Your task to perform on an android device: Search for the best websites on the internet Image 0: 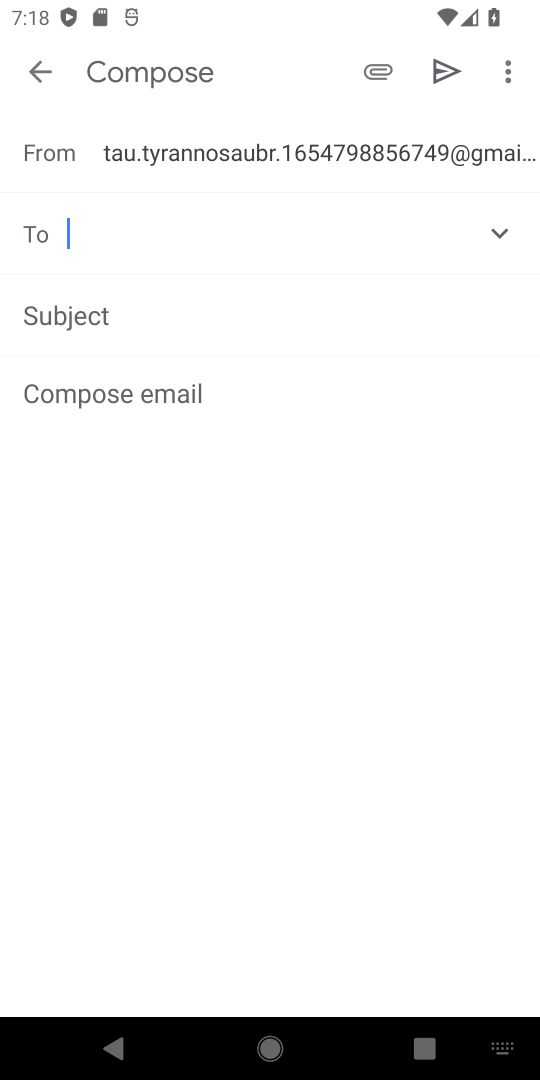
Step 0: press home button
Your task to perform on an android device: Search for the best websites on the internet Image 1: 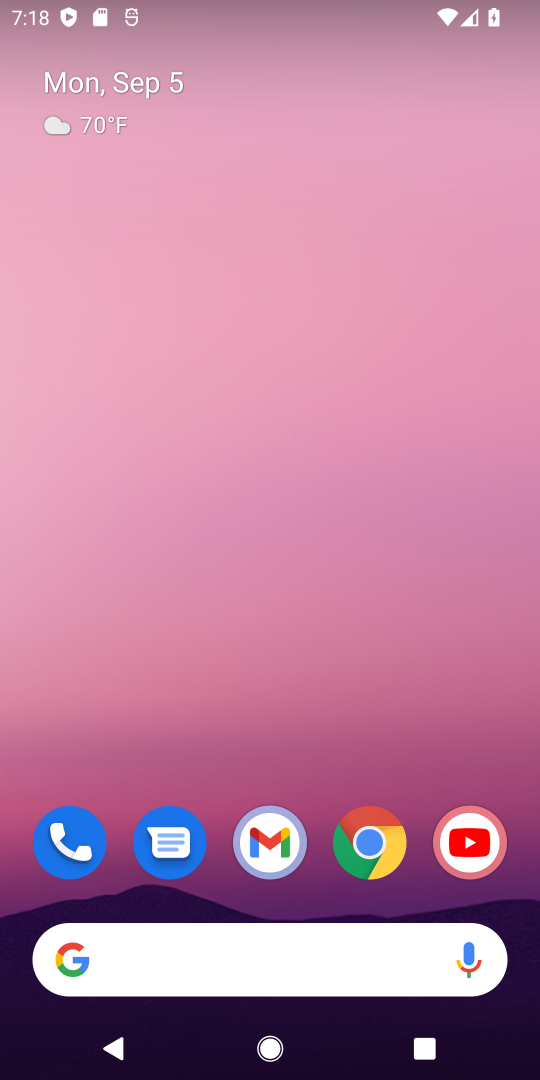
Step 1: click (369, 845)
Your task to perform on an android device: Search for the best websites on the internet Image 2: 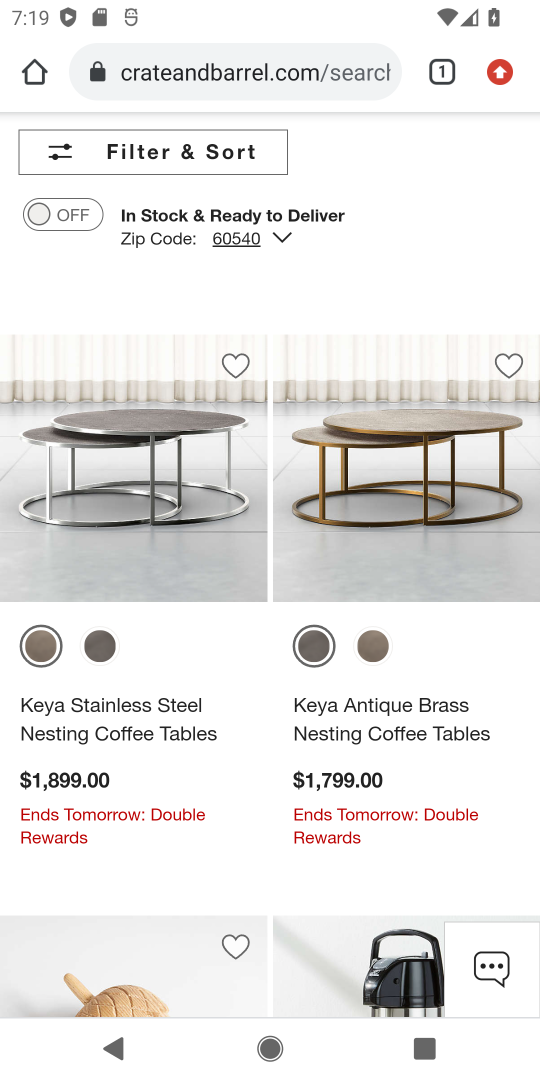
Step 2: click (308, 75)
Your task to perform on an android device: Search for the best websites on the internet Image 3: 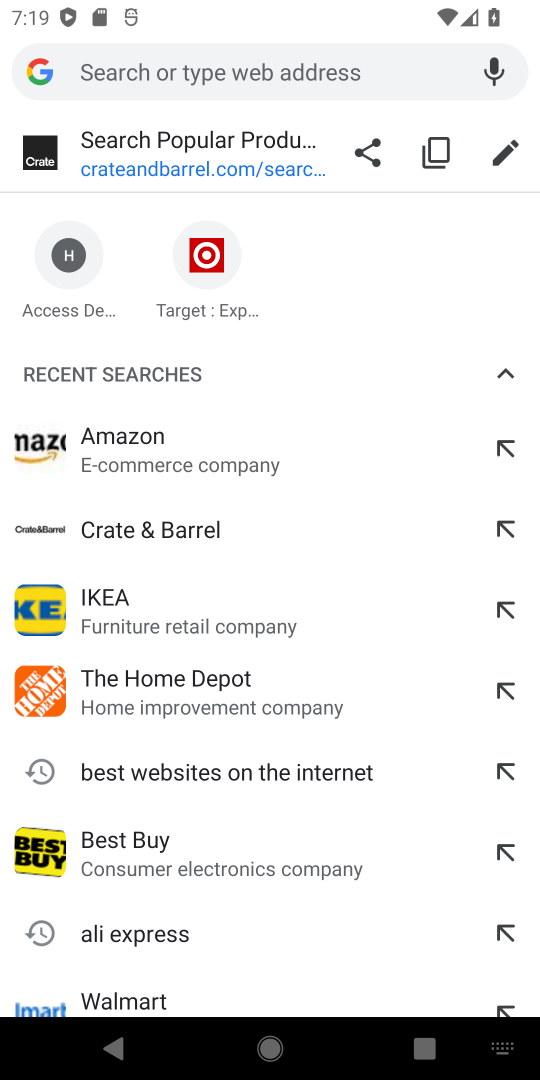
Step 3: type "best websites on the internet"
Your task to perform on an android device: Search for the best websites on the internet Image 4: 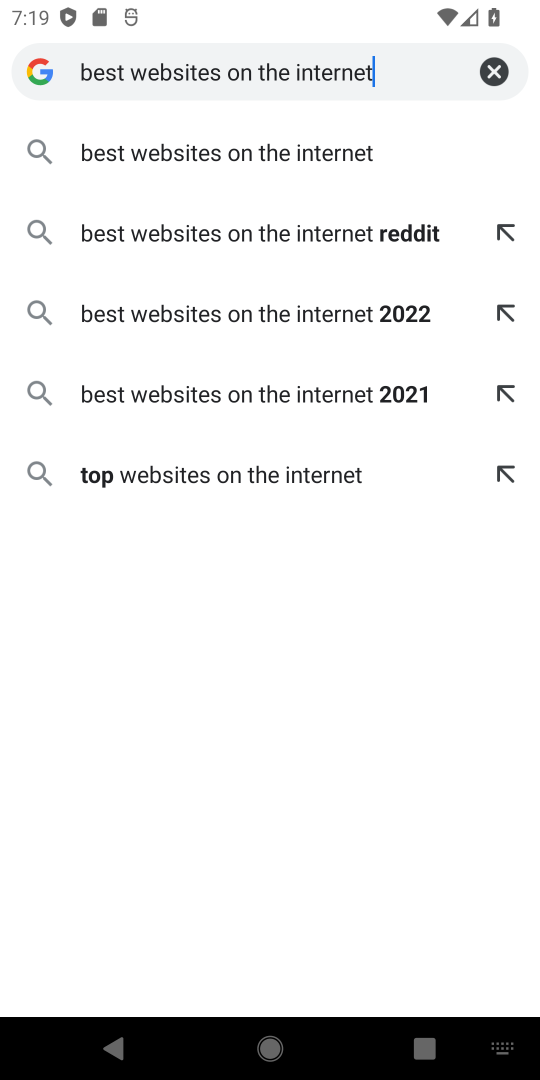
Step 4: click (211, 146)
Your task to perform on an android device: Search for the best websites on the internet Image 5: 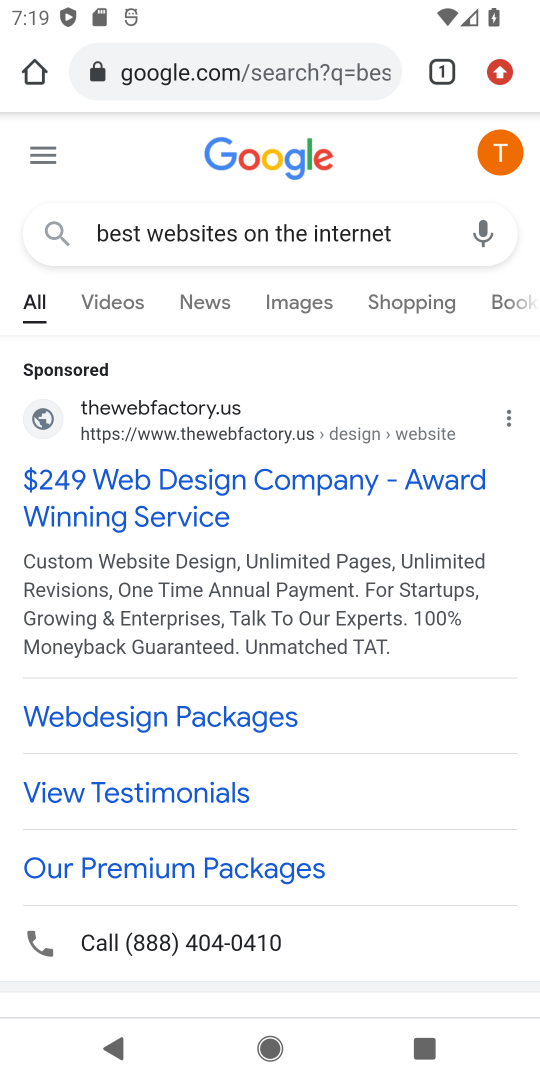
Step 5: drag from (288, 793) to (364, 644)
Your task to perform on an android device: Search for the best websites on the internet Image 6: 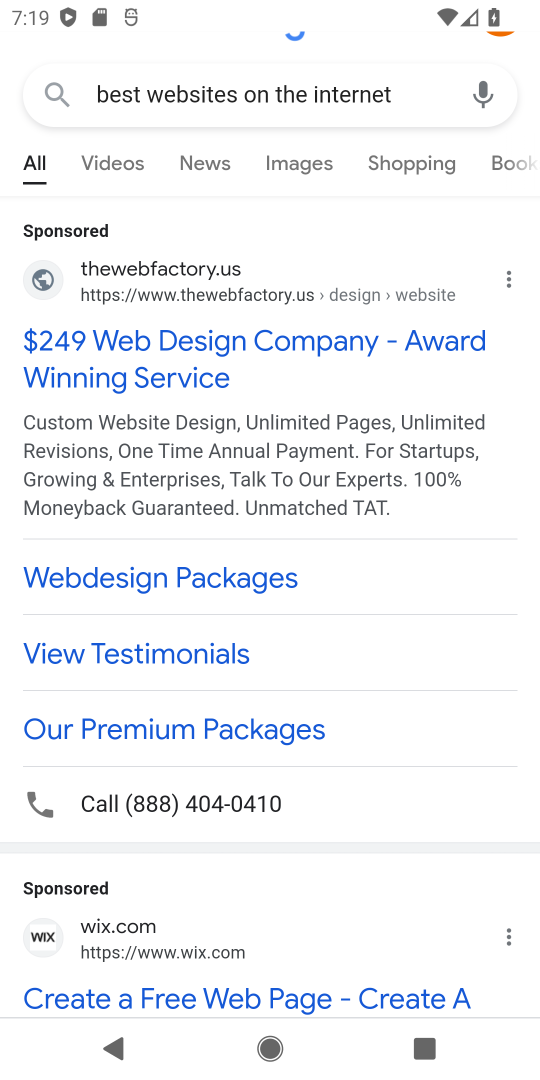
Step 6: drag from (364, 892) to (425, 695)
Your task to perform on an android device: Search for the best websites on the internet Image 7: 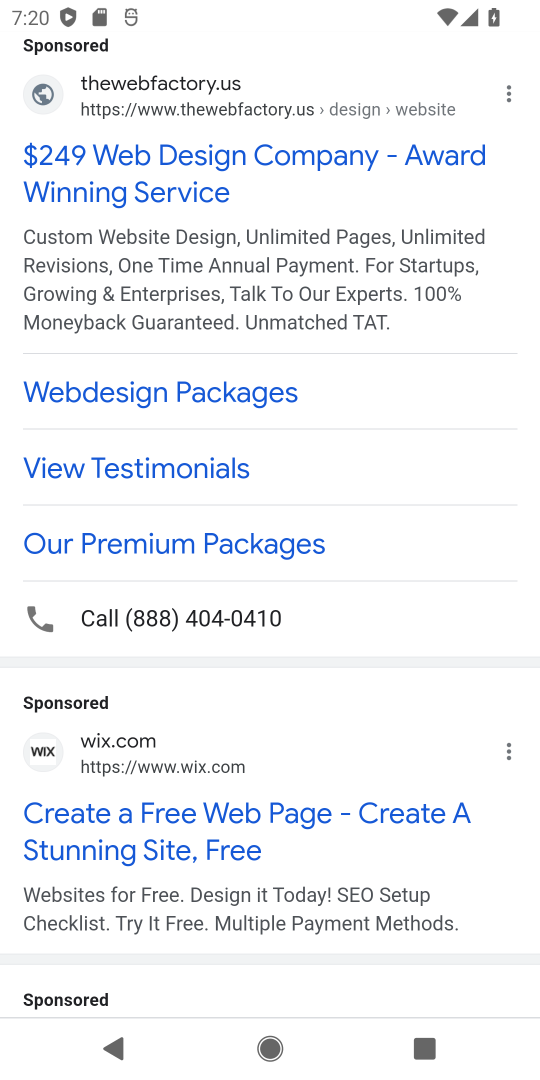
Step 7: drag from (278, 924) to (385, 672)
Your task to perform on an android device: Search for the best websites on the internet Image 8: 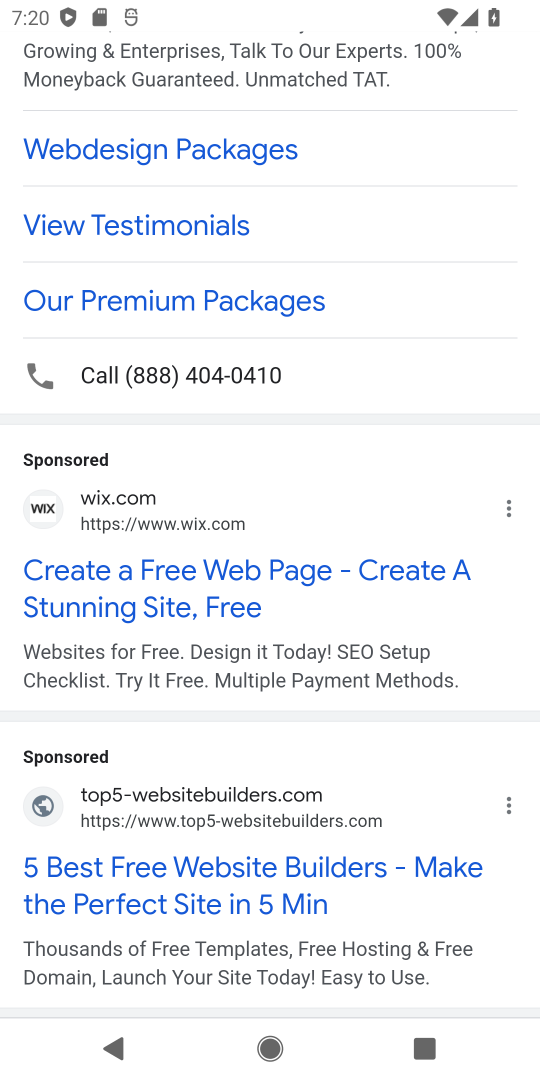
Step 8: drag from (355, 906) to (398, 728)
Your task to perform on an android device: Search for the best websites on the internet Image 9: 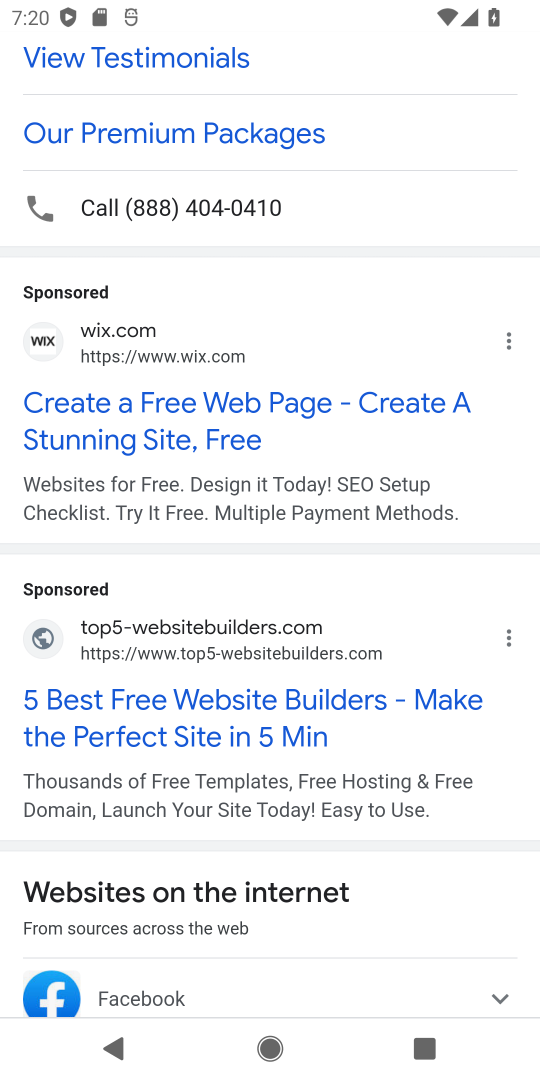
Step 9: drag from (276, 927) to (381, 747)
Your task to perform on an android device: Search for the best websites on the internet Image 10: 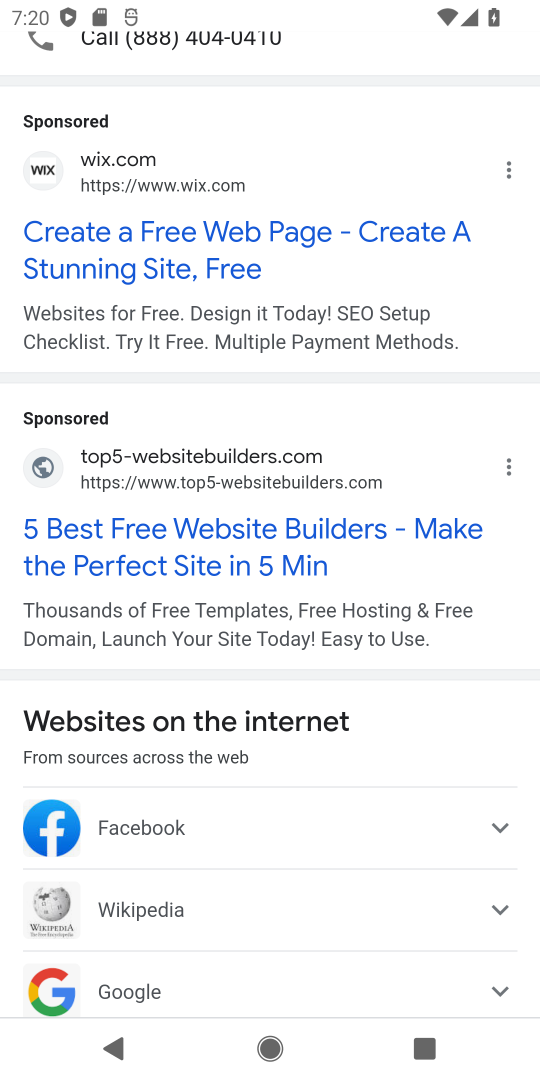
Step 10: drag from (242, 970) to (321, 811)
Your task to perform on an android device: Search for the best websites on the internet Image 11: 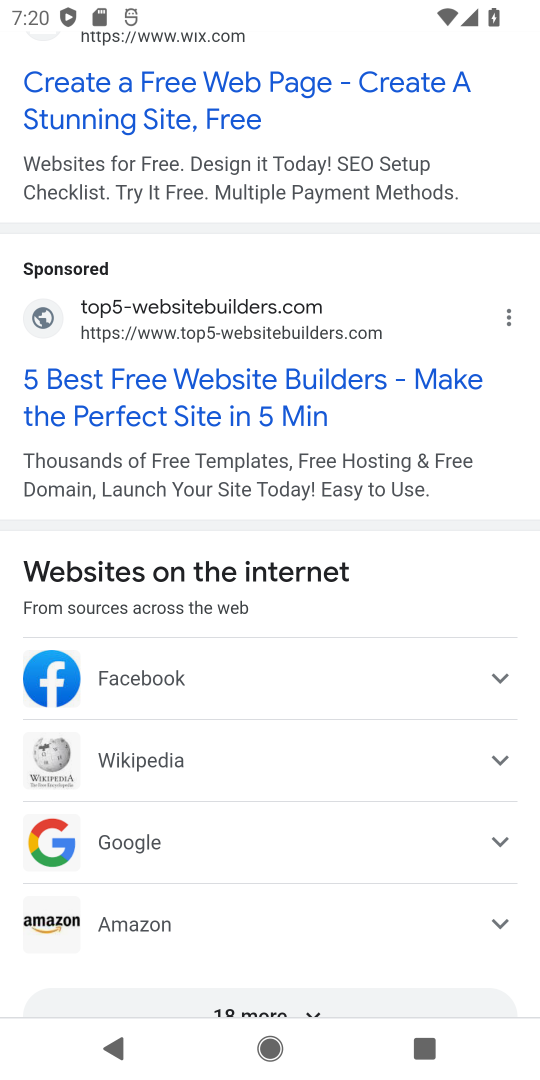
Step 11: drag from (294, 781) to (359, 660)
Your task to perform on an android device: Search for the best websites on the internet Image 12: 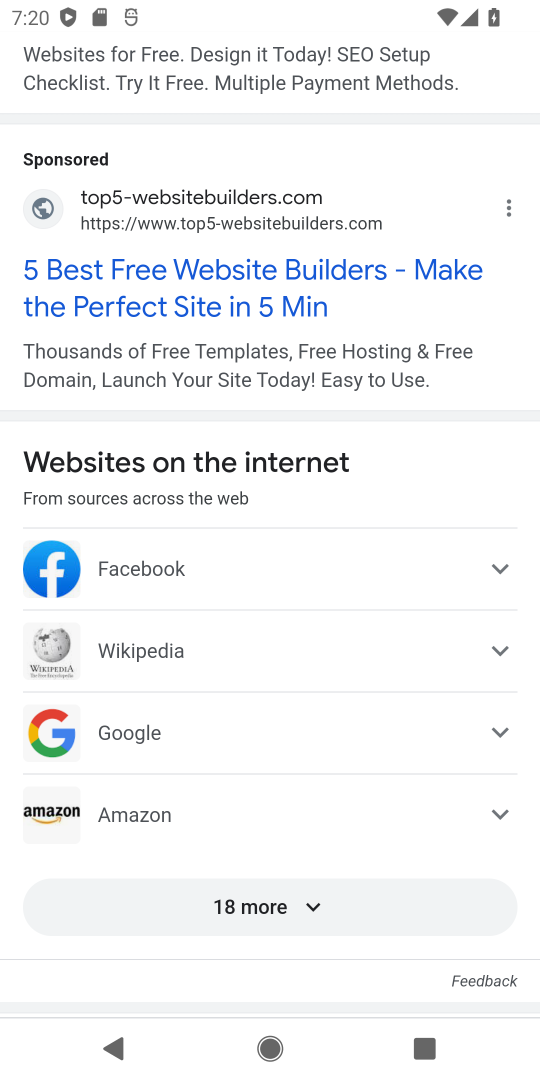
Step 12: drag from (296, 900) to (392, 740)
Your task to perform on an android device: Search for the best websites on the internet Image 13: 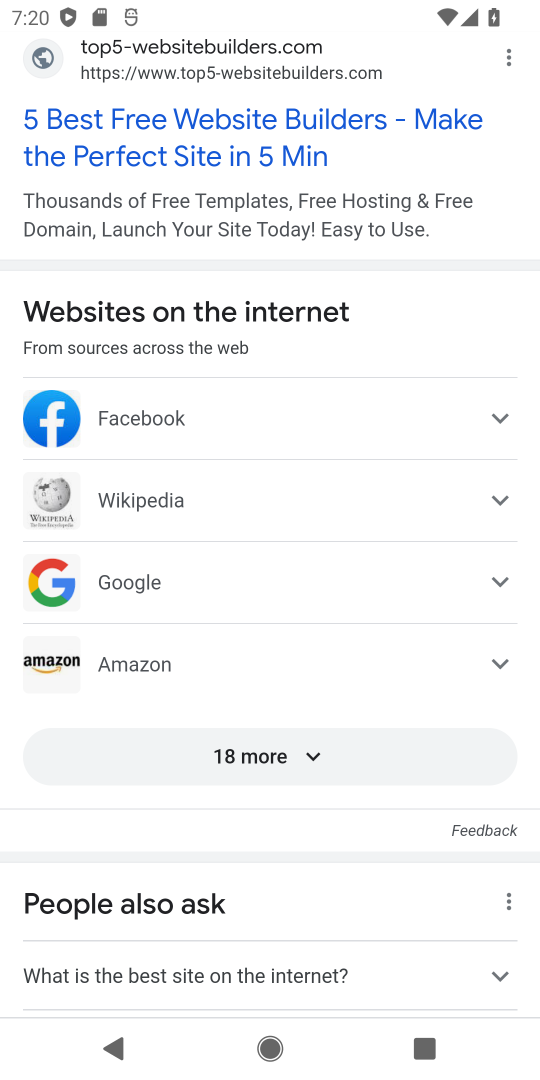
Step 13: click (254, 756)
Your task to perform on an android device: Search for the best websites on the internet Image 14: 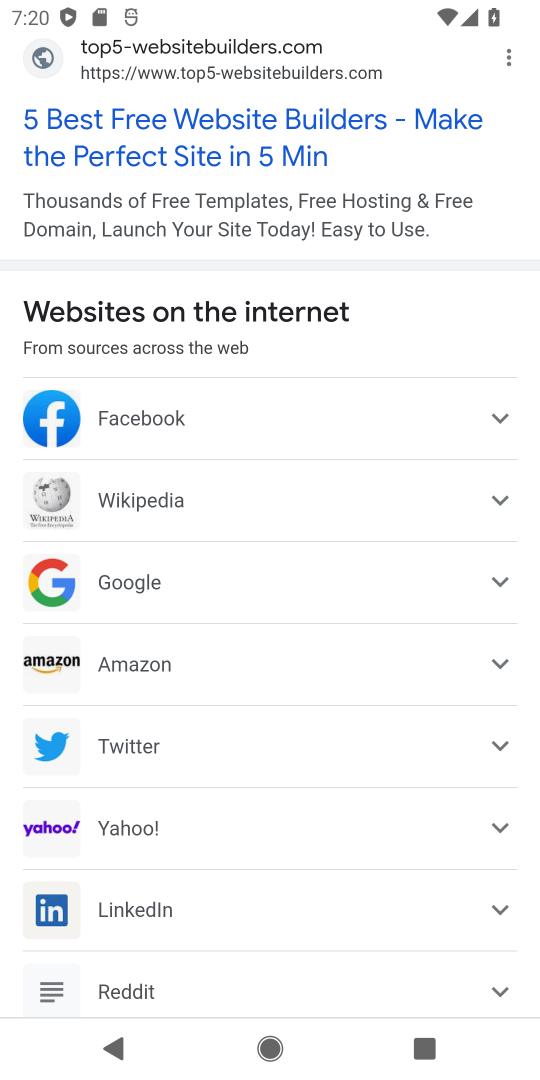
Step 14: drag from (180, 846) to (258, 708)
Your task to perform on an android device: Search for the best websites on the internet Image 15: 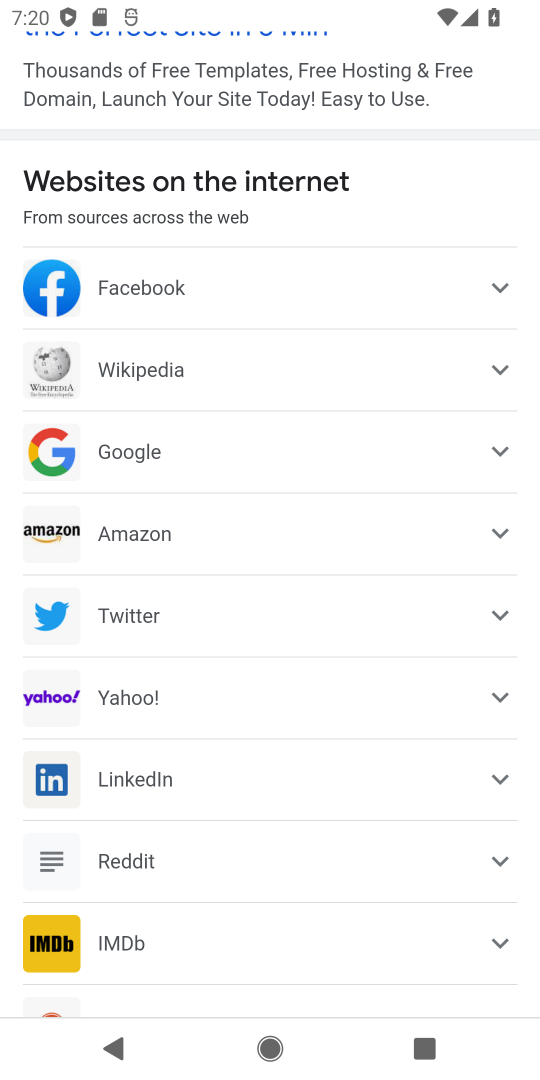
Step 15: drag from (200, 807) to (262, 728)
Your task to perform on an android device: Search for the best websites on the internet Image 16: 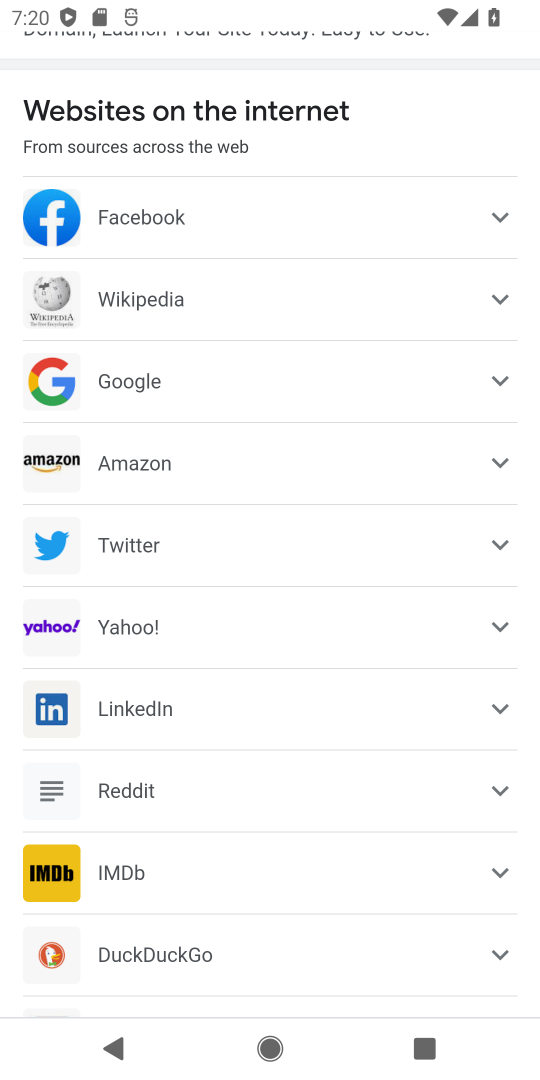
Step 16: drag from (196, 878) to (277, 771)
Your task to perform on an android device: Search for the best websites on the internet Image 17: 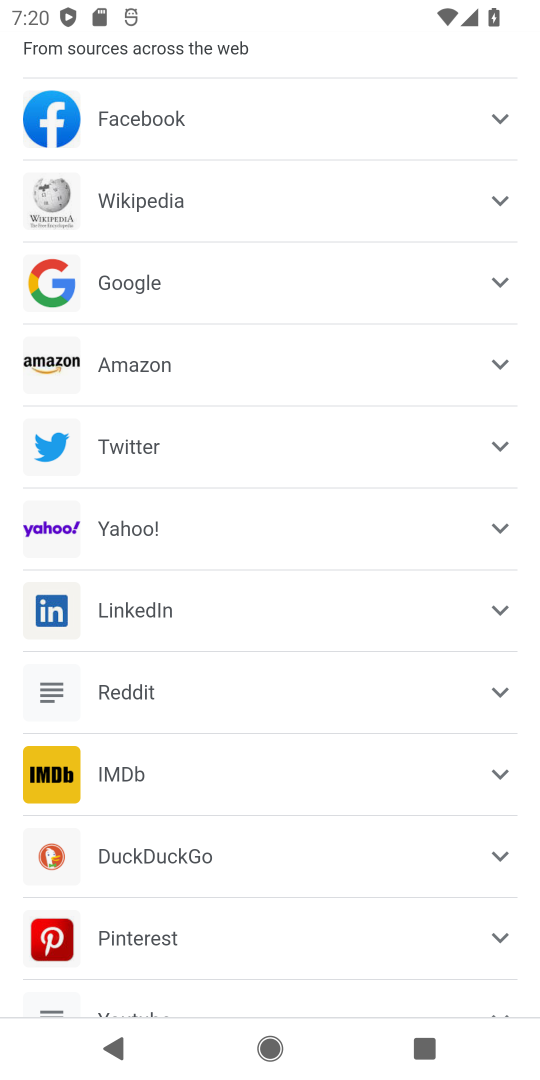
Step 17: drag from (240, 859) to (295, 768)
Your task to perform on an android device: Search for the best websites on the internet Image 18: 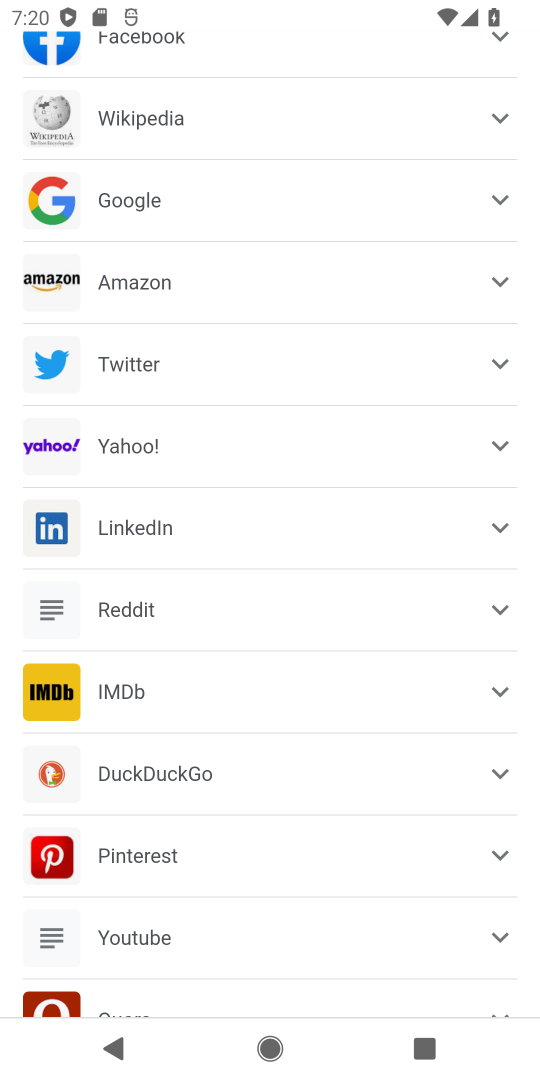
Step 18: drag from (207, 914) to (310, 788)
Your task to perform on an android device: Search for the best websites on the internet Image 19: 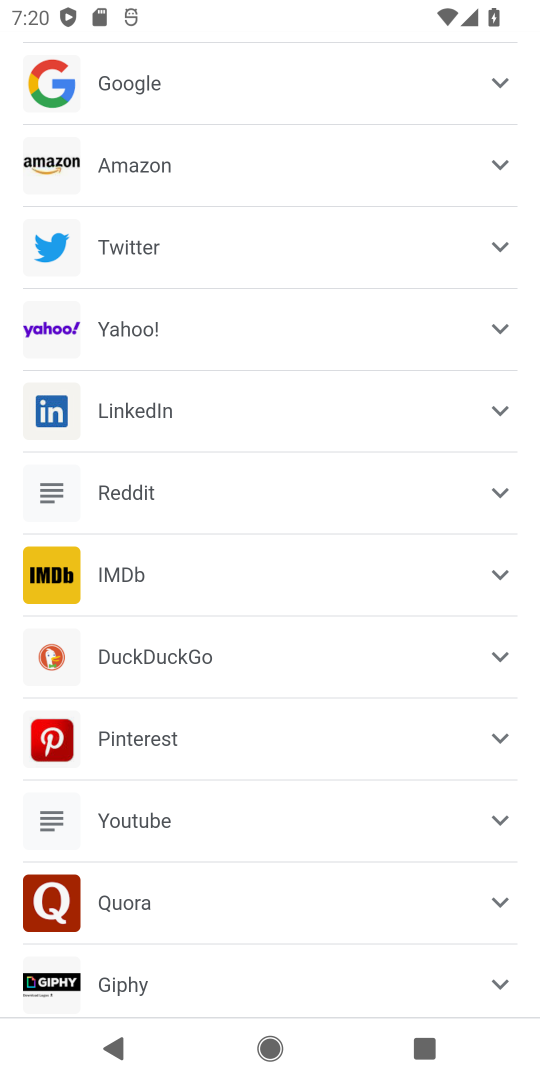
Step 19: drag from (233, 898) to (282, 752)
Your task to perform on an android device: Search for the best websites on the internet Image 20: 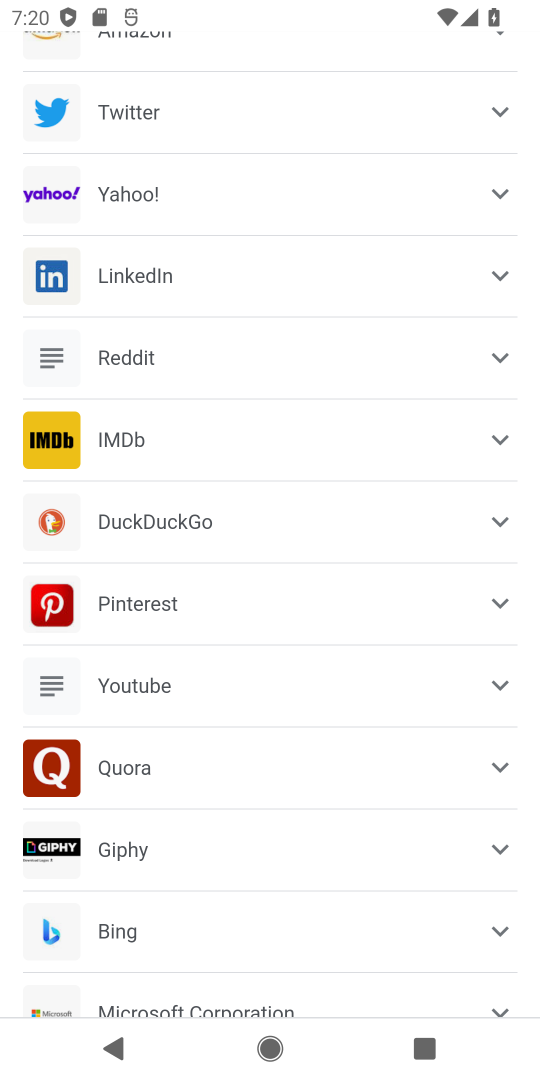
Step 20: drag from (195, 921) to (281, 802)
Your task to perform on an android device: Search for the best websites on the internet Image 21: 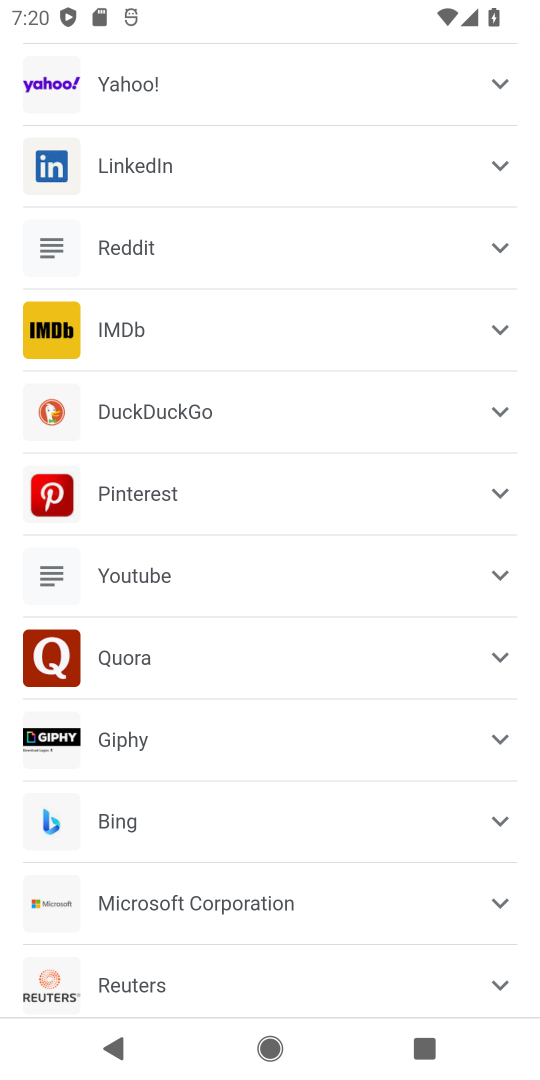
Step 21: drag from (201, 918) to (293, 808)
Your task to perform on an android device: Search for the best websites on the internet Image 22: 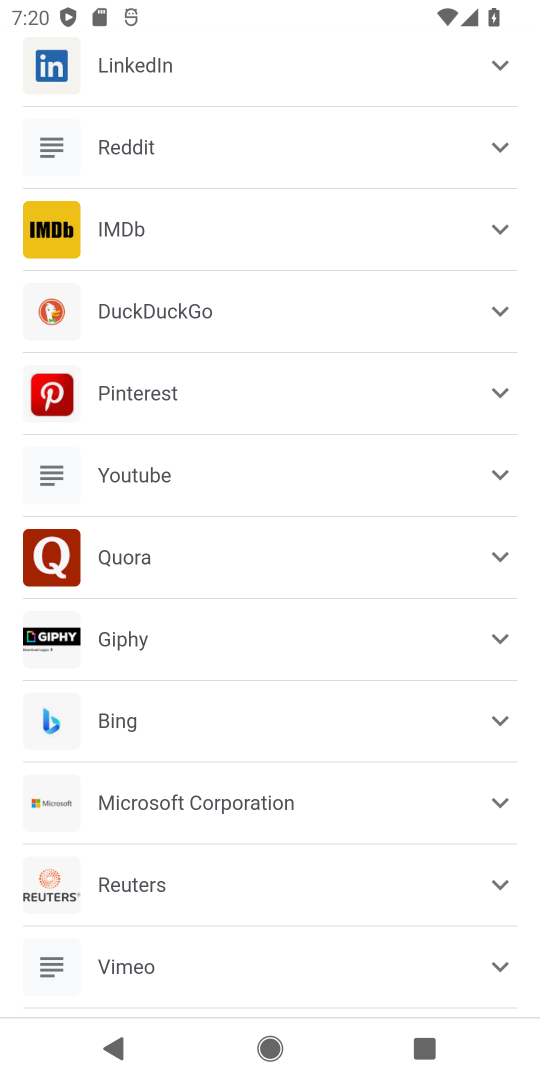
Step 22: drag from (218, 898) to (284, 800)
Your task to perform on an android device: Search for the best websites on the internet Image 23: 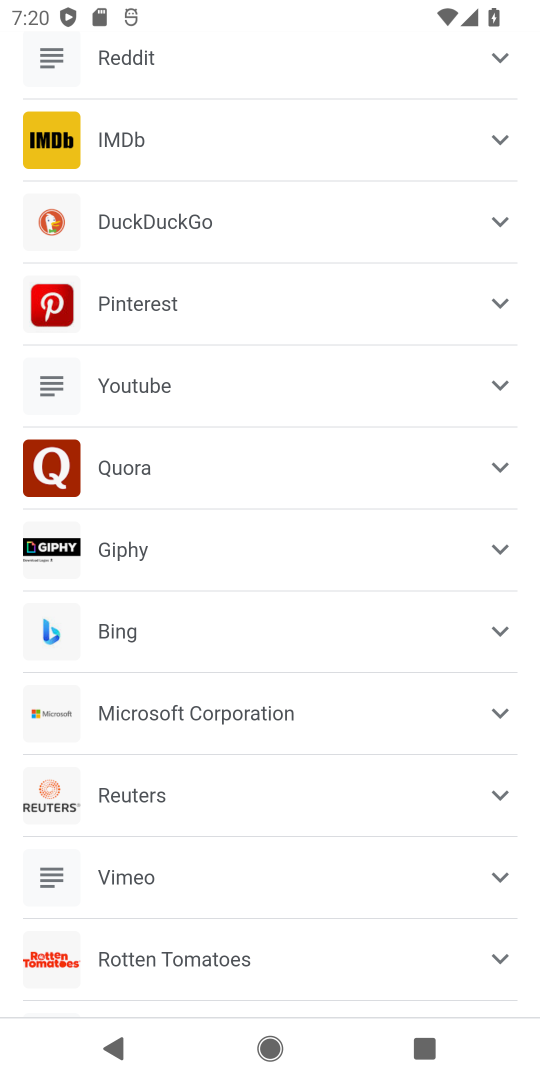
Step 23: click (240, 864)
Your task to perform on an android device: Search for the best websites on the internet Image 24: 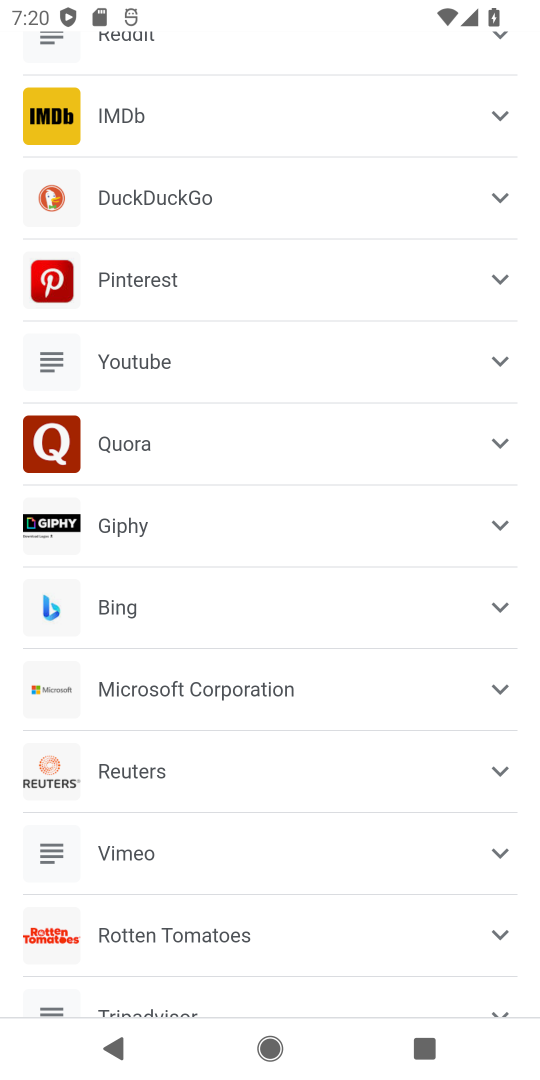
Step 24: task complete